Your task to perform on an android device: empty trash in google photos Image 0: 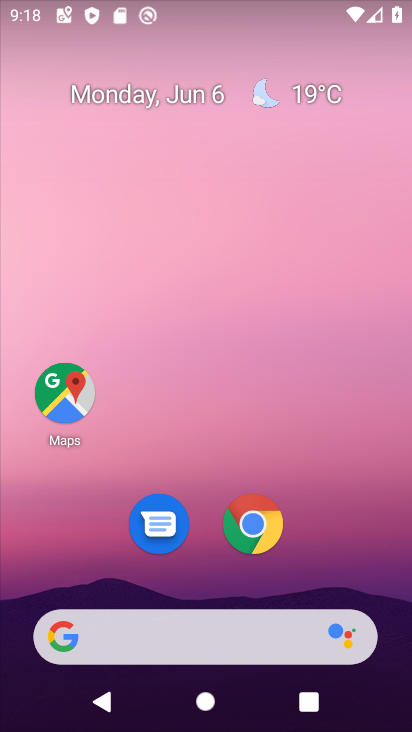
Step 0: drag from (341, 538) to (340, 119)
Your task to perform on an android device: empty trash in google photos Image 1: 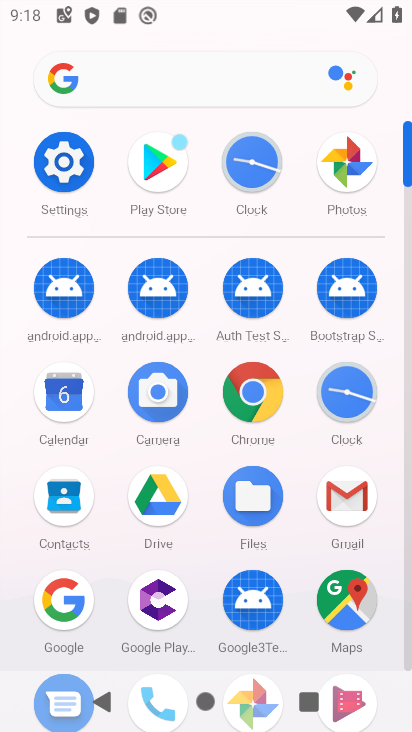
Step 1: click (335, 165)
Your task to perform on an android device: empty trash in google photos Image 2: 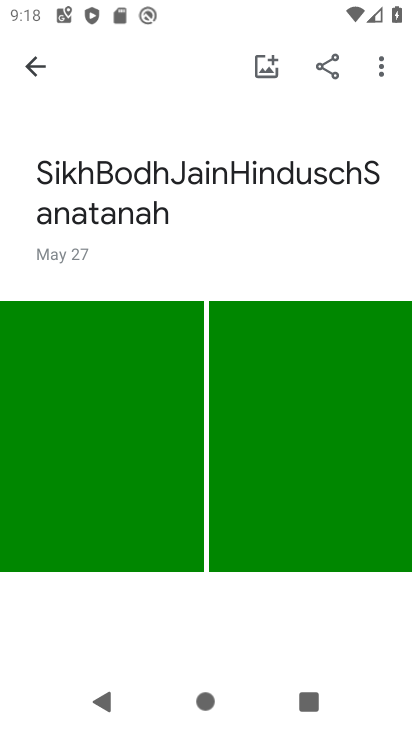
Step 2: click (37, 64)
Your task to perform on an android device: empty trash in google photos Image 3: 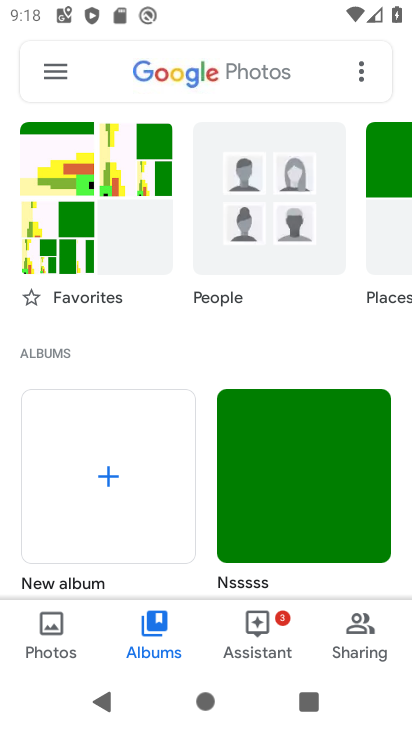
Step 3: click (50, 56)
Your task to perform on an android device: empty trash in google photos Image 4: 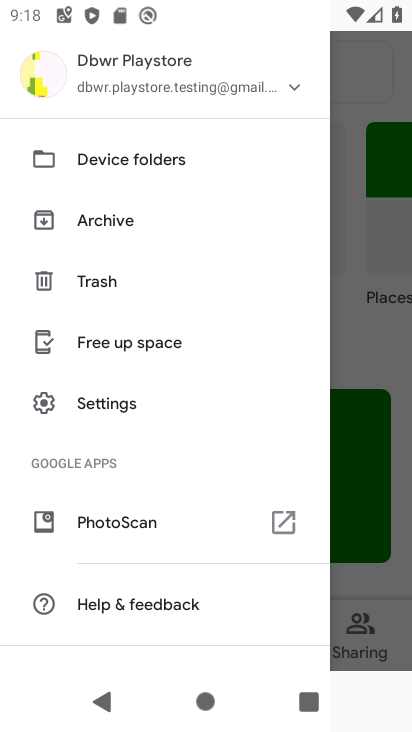
Step 4: click (92, 280)
Your task to perform on an android device: empty trash in google photos Image 5: 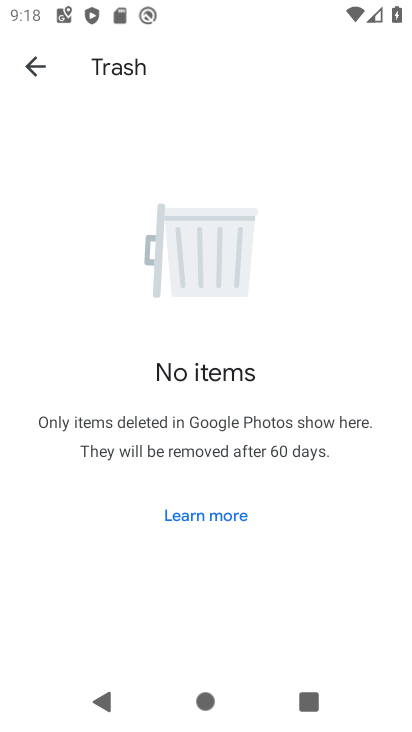
Step 5: task complete